Your task to perform on an android device: Search for pizza restaurants on Maps Image 0: 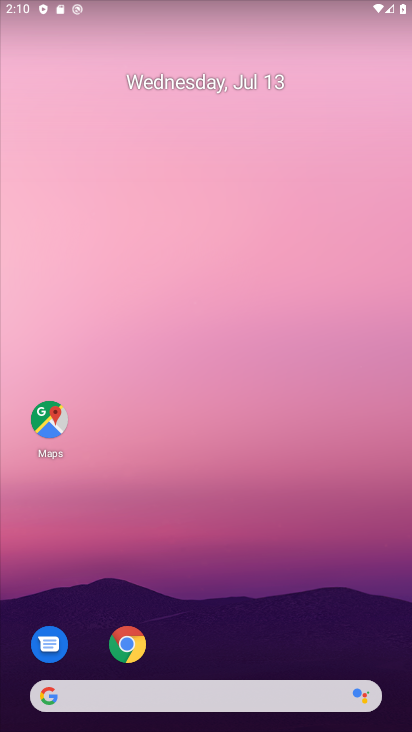
Step 0: click (40, 419)
Your task to perform on an android device: Search for pizza restaurants on Maps Image 1: 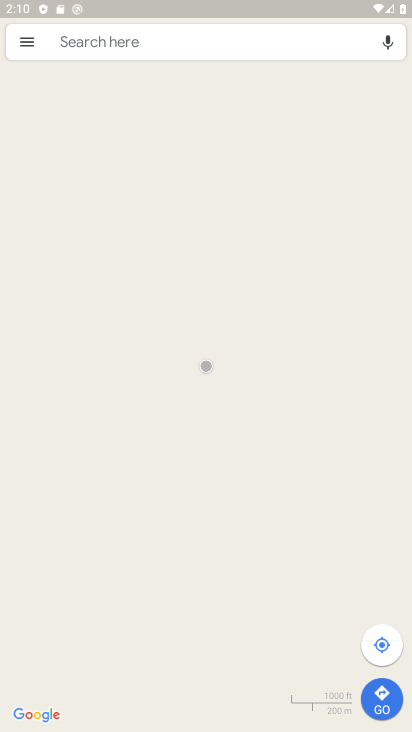
Step 1: click (108, 40)
Your task to perform on an android device: Search for pizza restaurants on Maps Image 2: 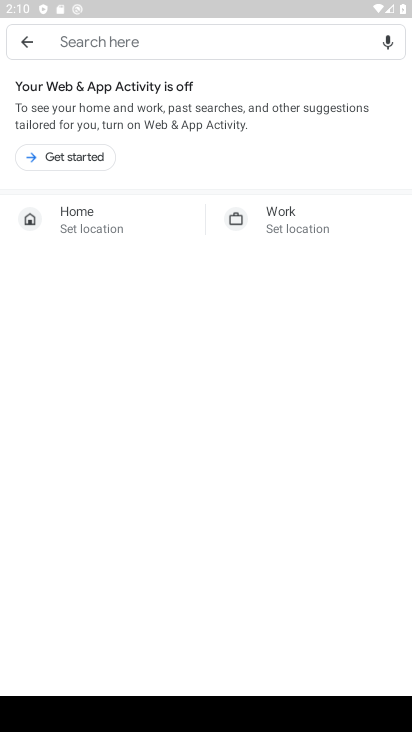
Step 2: click (150, 45)
Your task to perform on an android device: Search for pizza restaurants on Maps Image 3: 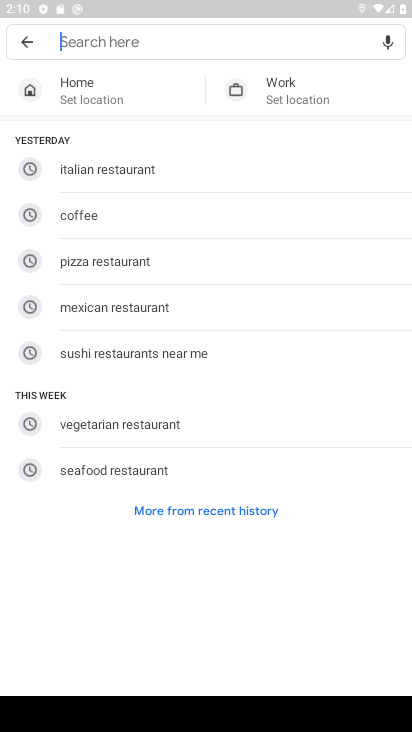
Step 3: type "pi"
Your task to perform on an android device: Search for pizza restaurants on Maps Image 4: 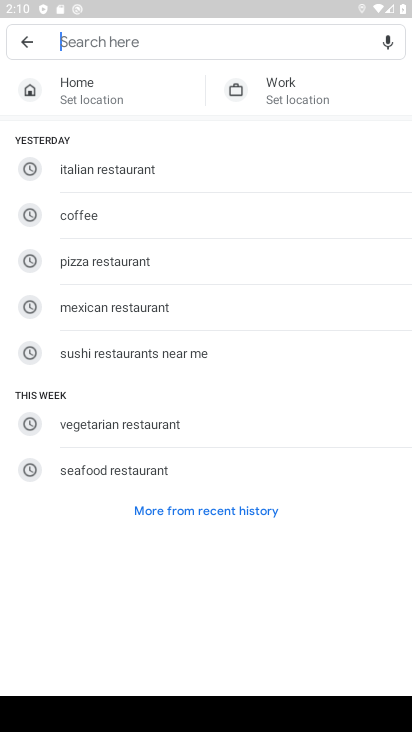
Step 4: click (105, 261)
Your task to perform on an android device: Search for pizza restaurants on Maps Image 5: 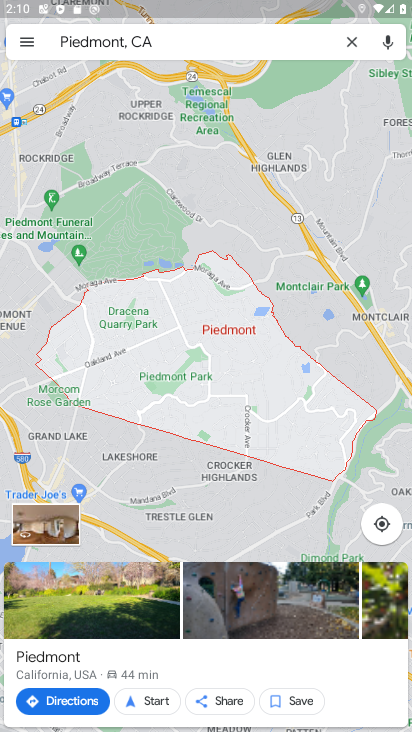
Step 5: click (354, 35)
Your task to perform on an android device: Search for pizza restaurants on Maps Image 6: 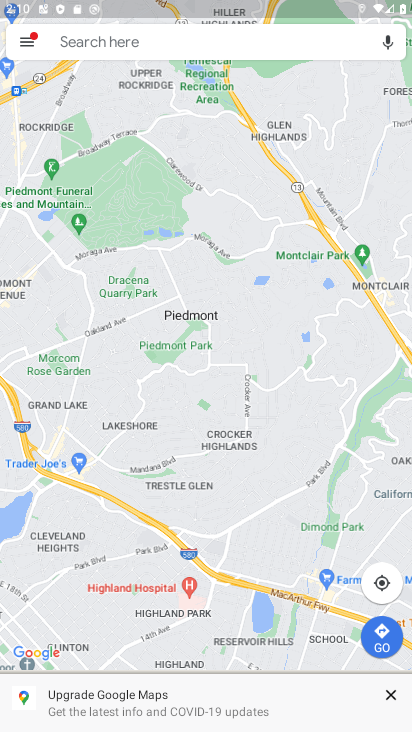
Step 6: click (87, 45)
Your task to perform on an android device: Search for pizza restaurants on Maps Image 7: 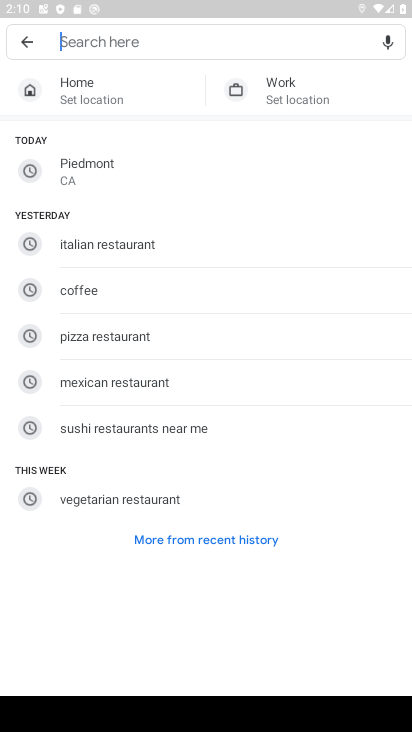
Step 7: click (143, 347)
Your task to perform on an android device: Search for pizza restaurants on Maps Image 8: 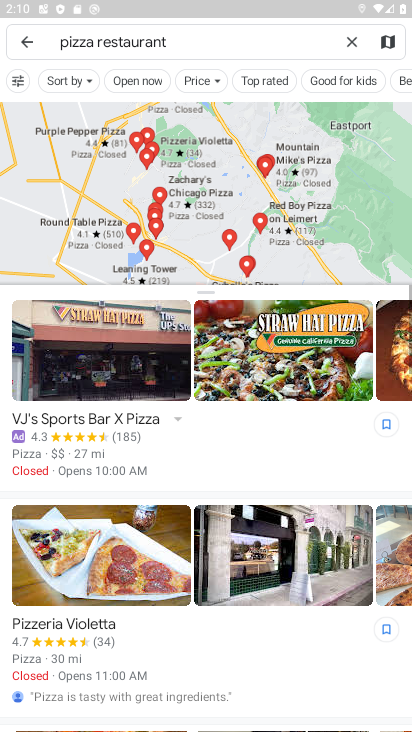
Step 8: task complete